Your task to perform on an android device: turn on notifications settings in the gmail app Image 0: 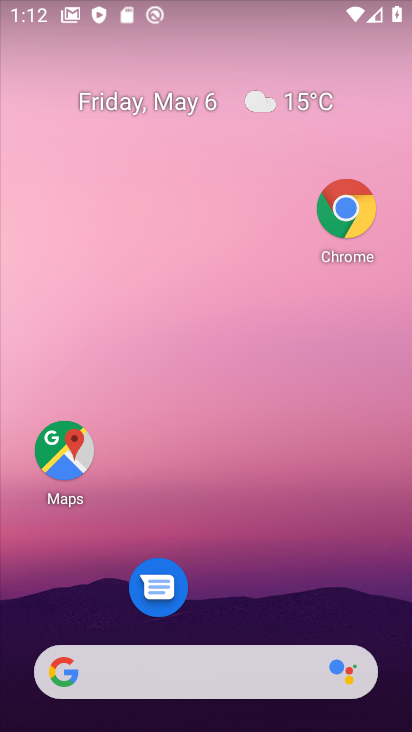
Step 0: click (248, 67)
Your task to perform on an android device: turn on notifications settings in the gmail app Image 1: 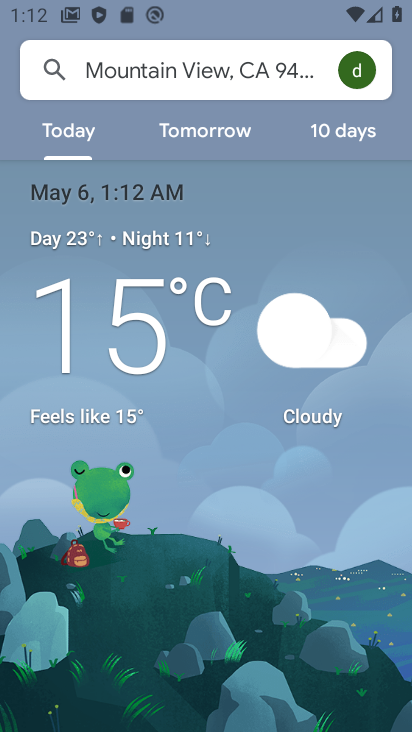
Step 1: press home button
Your task to perform on an android device: turn on notifications settings in the gmail app Image 2: 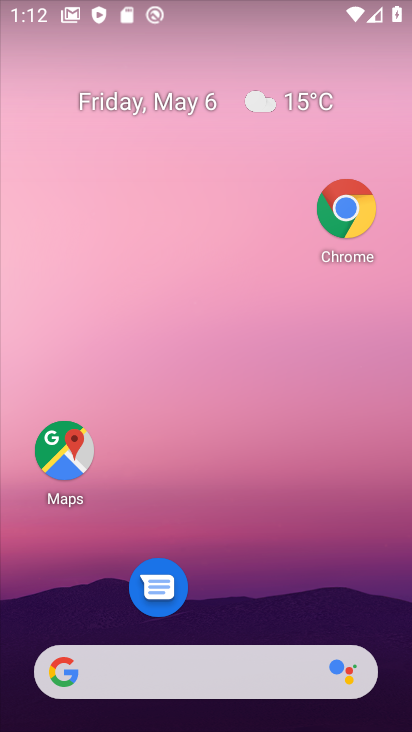
Step 2: drag from (252, 557) to (242, 156)
Your task to perform on an android device: turn on notifications settings in the gmail app Image 3: 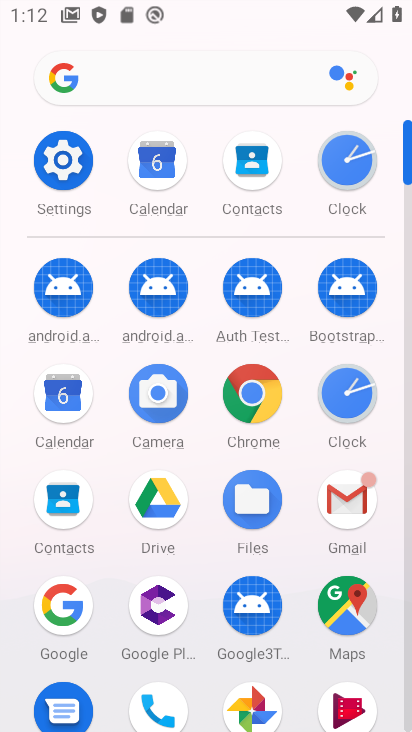
Step 3: click (354, 504)
Your task to perform on an android device: turn on notifications settings in the gmail app Image 4: 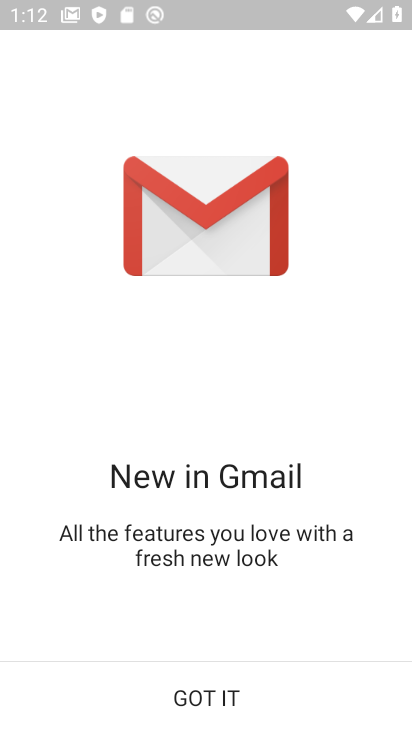
Step 4: click (185, 699)
Your task to perform on an android device: turn on notifications settings in the gmail app Image 5: 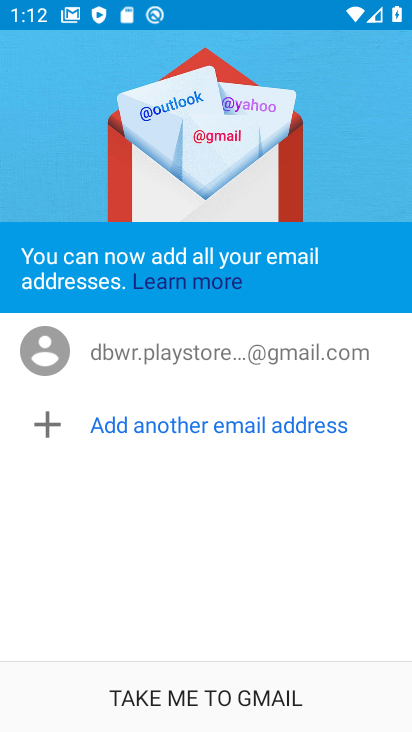
Step 5: click (185, 699)
Your task to perform on an android device: turn on notifications settings in the gmail app Image 6: 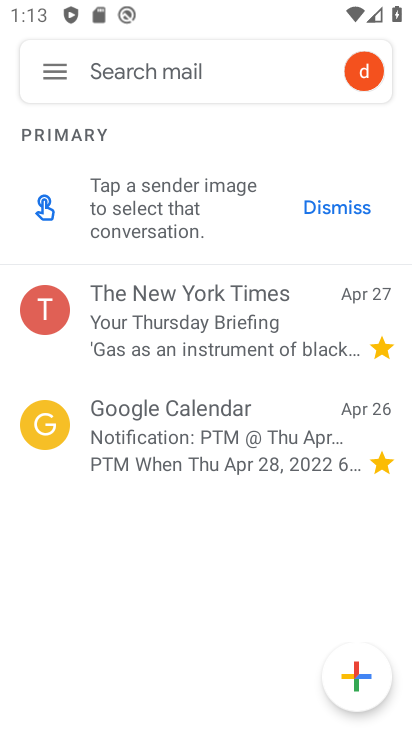
Step 6: click (61, 51)
Your task to perform on an android device: turn on notifications settings in the gmail app Image 7: 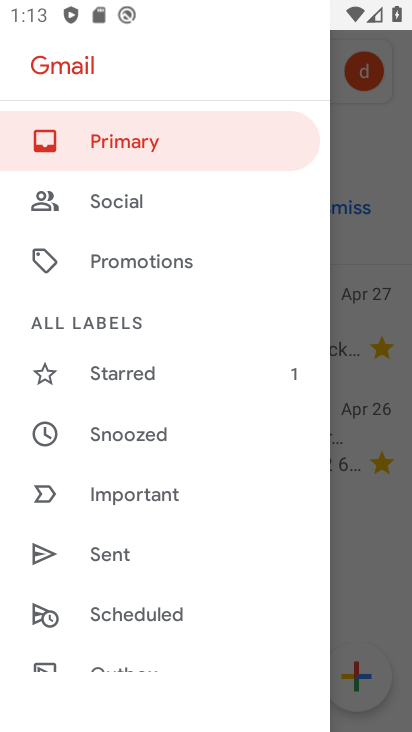
Step 7: drag from (126, 551) to (72, 53)
Your task to perform on an android device: turn on notifications settings in the gmail app Image 8: 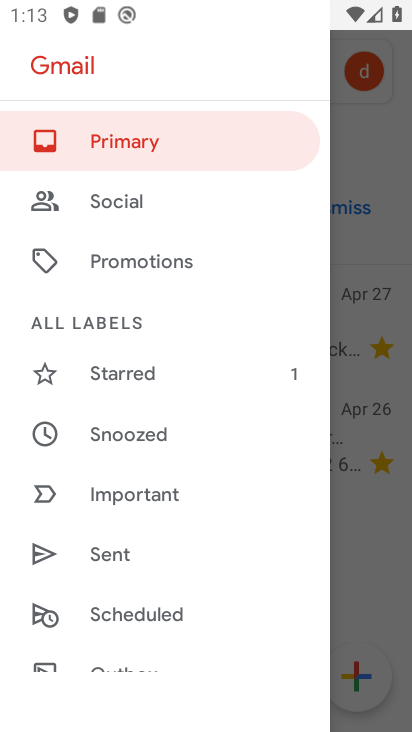
Step 8: click (175, 214)
Your task to perform on an android device: turn on notifications settings in the gmail app Image 9: 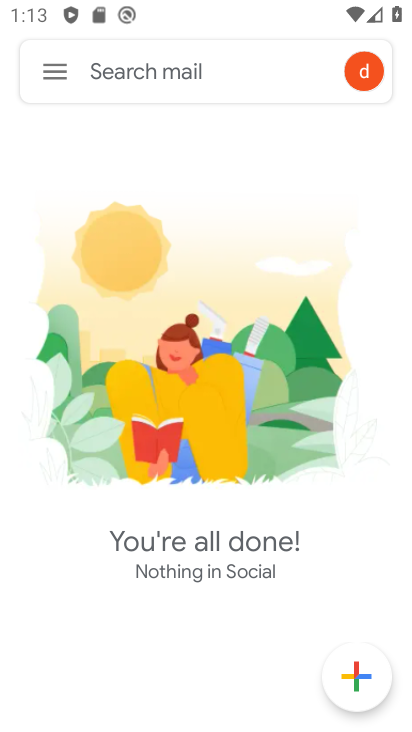
Step 9: click (57, 83)
Your task to perform on an android device: turn on notifications settings in the gmail app Image 10: 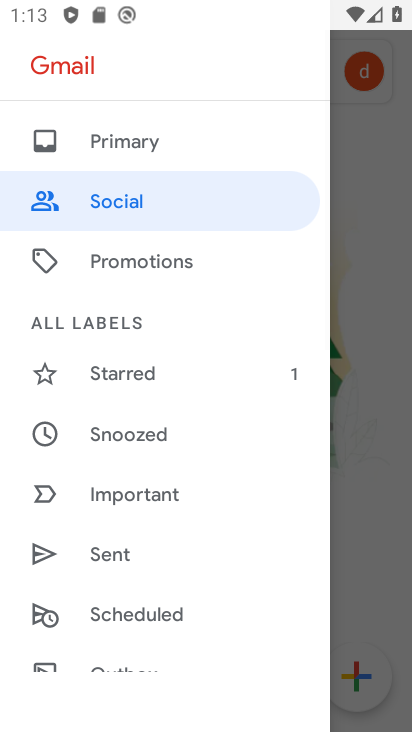
Step 10: drag from (148, 585) to (203, 80)
Your task to perform on an android device: turn on notifications settings in the gmail app Image 11: 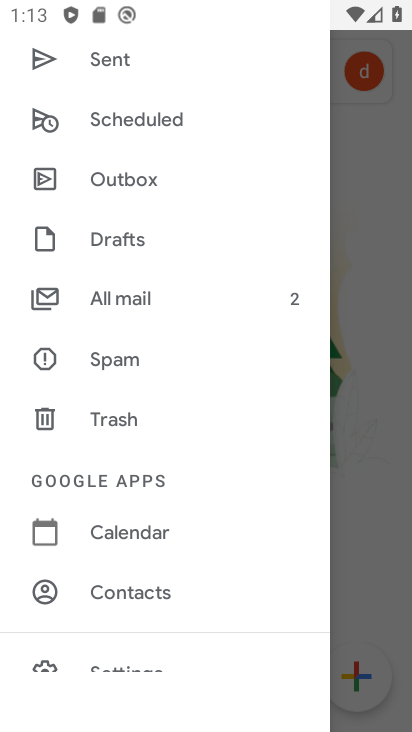
Step 11: drag from (156, 348) to (158, 104)
Your task to perform on an android device: turn on notifications settings in the gmail app Image 12: 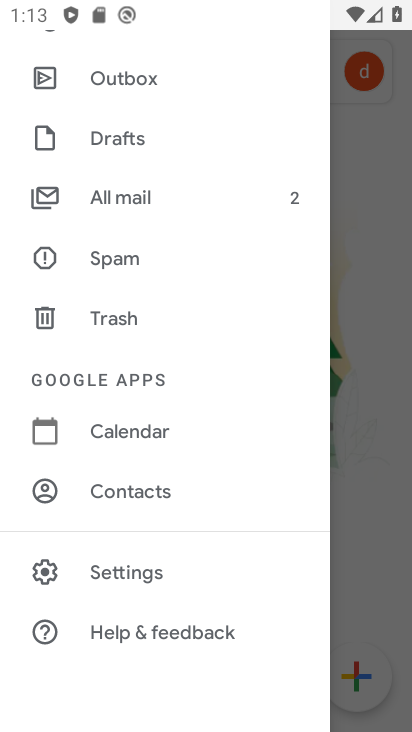
Step 12: click (118, 575)
Your task to perform on an android device: turn on notifications settings in the gmail app Image 13: 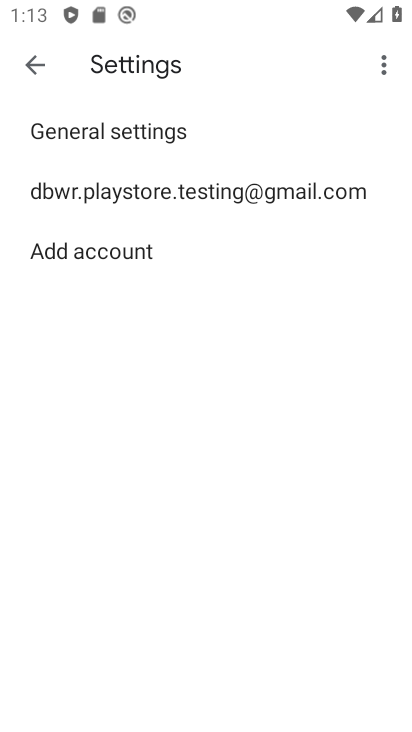
Step 13: click (174, 193)
Your task to perform on an android device: turn on notifications settings in the gmail app Image 14: 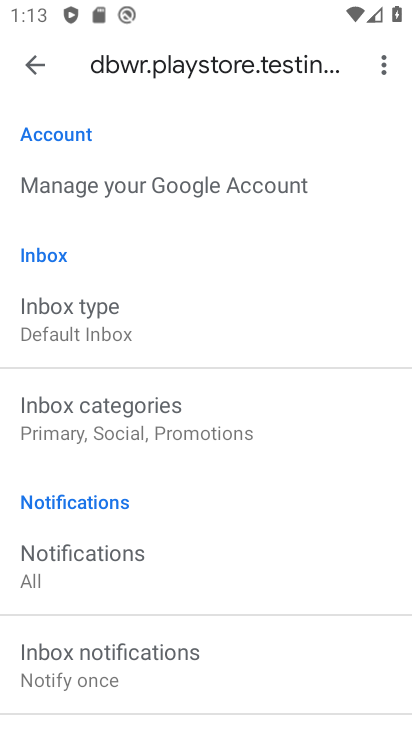
Step 14: click (49, 567)
Your task to perform on an android device: turn on notifications settings in the gmail app Image 15: 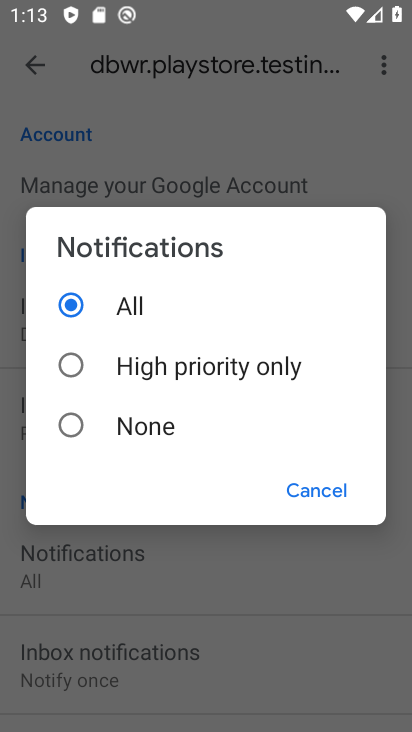
Step 15: task complete